Your task to perform on an android device: turn off translation in the chrome app Image 0: 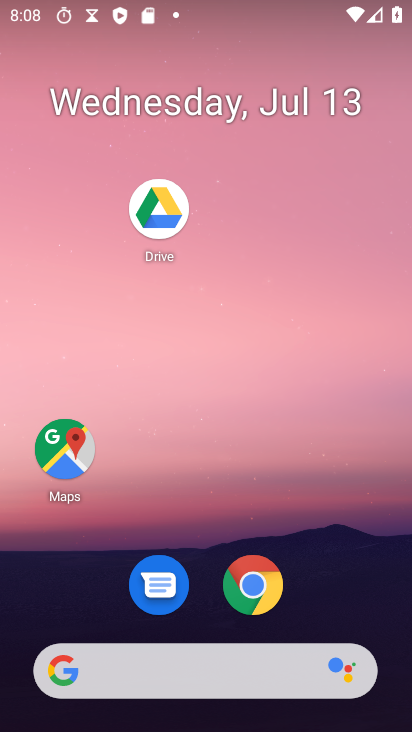
Step 0: click (257, 588)
Your task to perform on an android device: turn off translation in the chrome app Image 1: 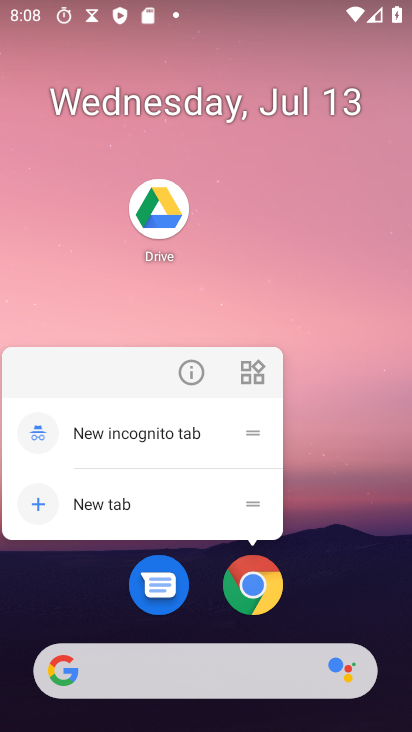
Step 1: click (252, 589)
Your task to perform on an android device: turn off translation in the chrome app Image 2: 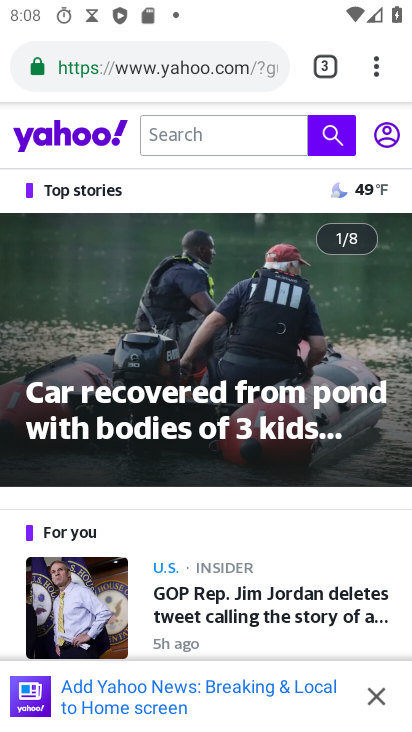
Step 2: drag from (378, 67) to (248, 597)
Your task to perform on an android device: turn off translation in the chrome app Image 3: 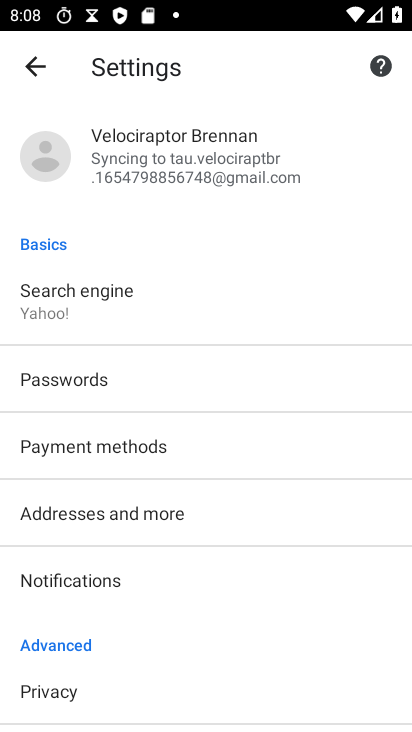
Step 3: drag from (297, 280) to (355, 97)
Your task to perform on an android device: turn off translation in the chrome app Image 4: 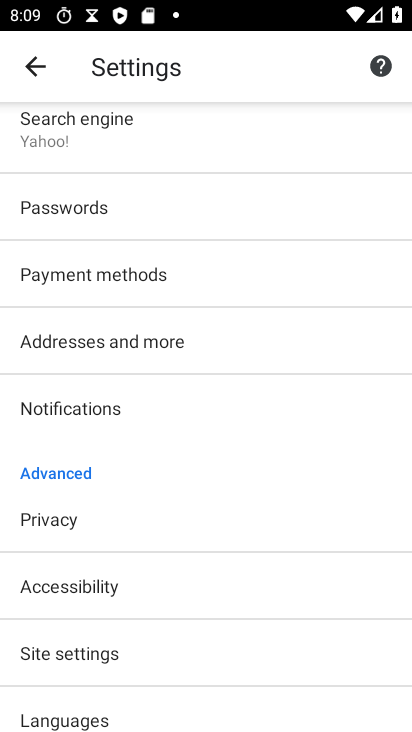
Step 4: drag from (173, 551) to (266, 295)
Your task to perform on an android device: turn off translation in the chrome app Image 5: 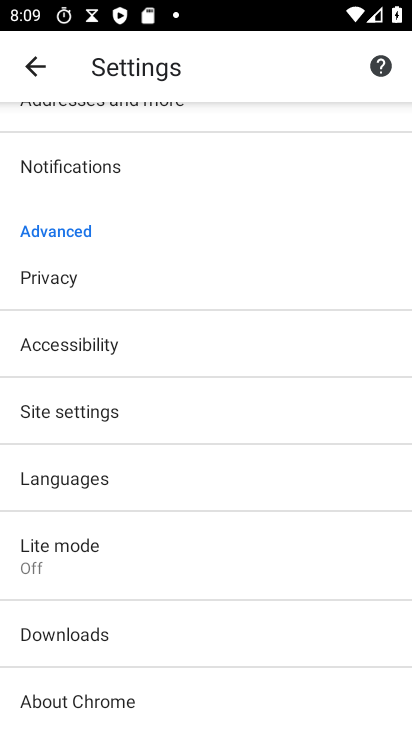
Step 5: click (82, 480)
Your task to perform on an android device: turn off translation in the chrome app Image 6: 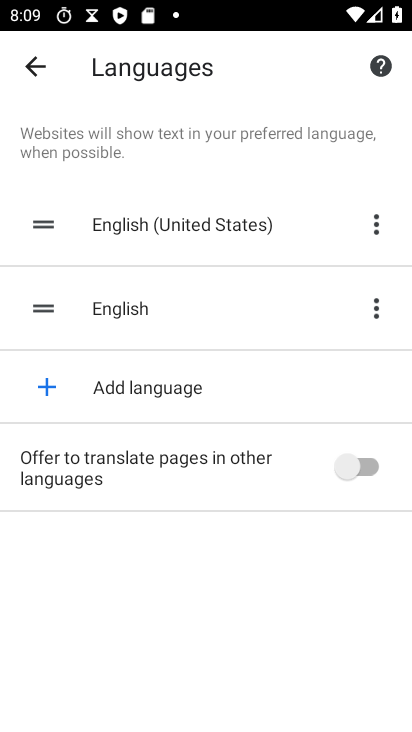
Step 6: task complete